Your task to perform on an android device: Search for vegetarian restaurants on Maps Image 0: 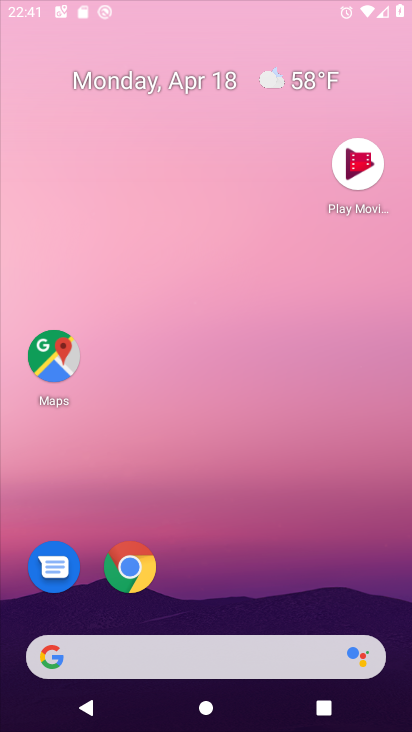
Step 0: click (313, 145)
Your task to perform on an android device: Search for vegetarian restaurants on Maps Image 1: 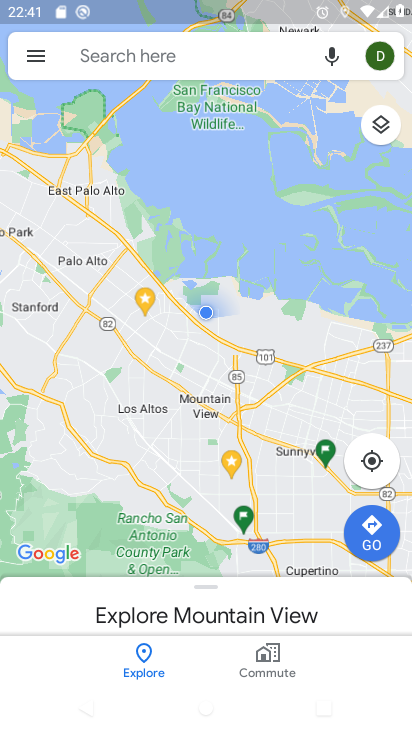
Step 1: drag from (216, 491) to (257, 272)
Your task to perform on an android device: Search for vegetarian restaurants on Maps Image 2: 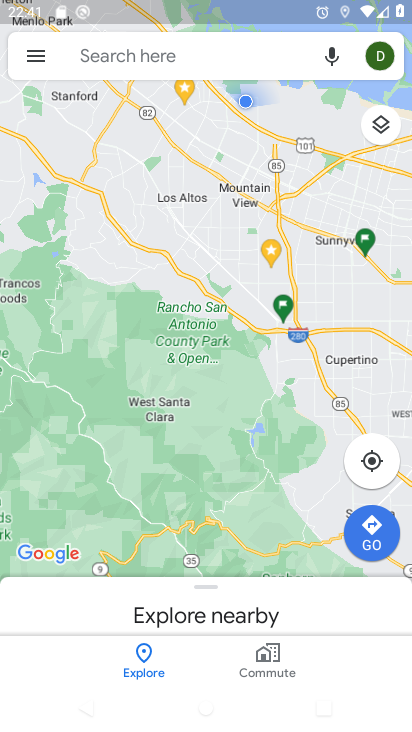
Step 2: drag from (242, 491) to (268, 262)
Your task to perform on an android device: Search for vegetarian restaurants on Maps Image 3: 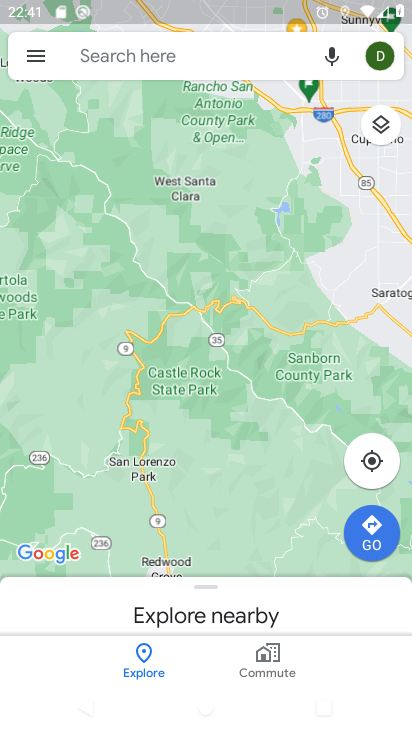
Step 3: drag from (241, 607) to (295, 224)
Your task to perform on an android device: Search for vegetarian restaurants on Maps Image 4: 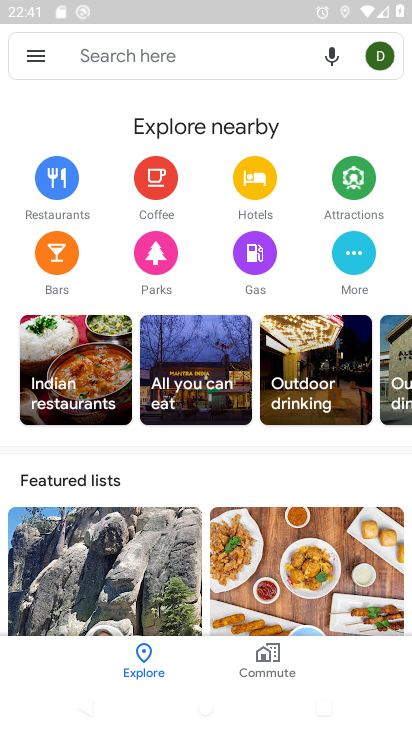
Step 4: drag from (211, 510) to (241, 241)
Your task to perform on an android device: Search for vegetarian restaurants on Maps Image 5: 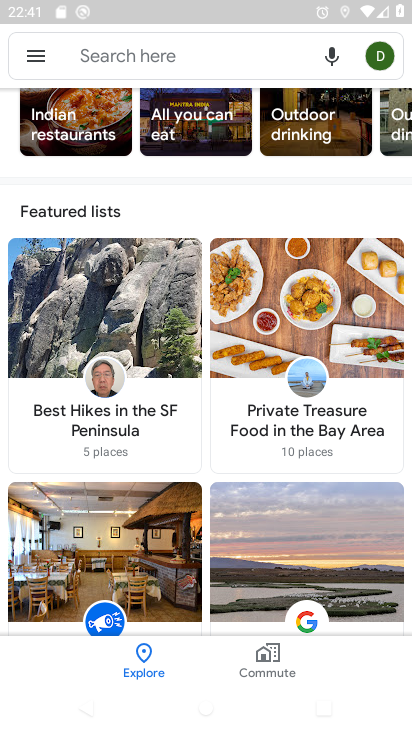
Step 5: click (182, 70)
Your task to perform on an android device: Search for vegetarian restaurants on Maps Image 6: 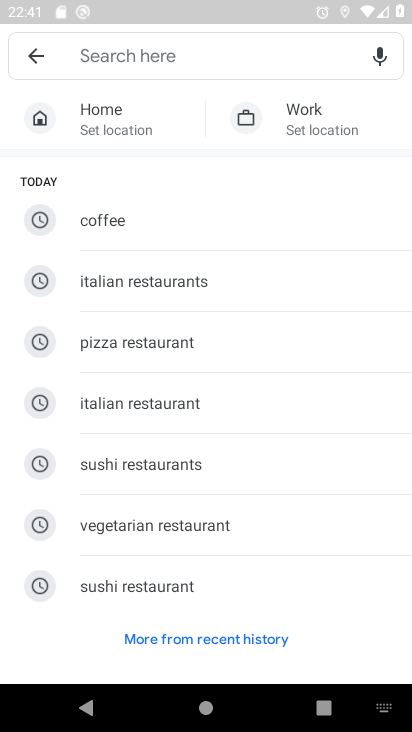
Step 6: click (169, 526)
Your task to perform on an android device: Search for vegetarian restaurants on Maps Image 7: 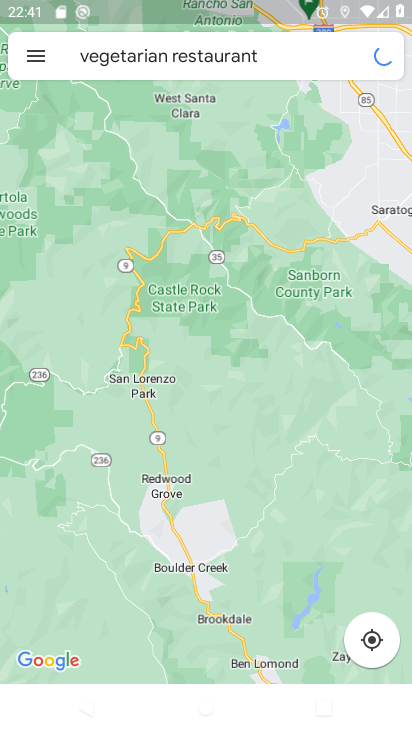
Step 7: task complete